Your task to perform on an android device: check the backup settings in the google photos Image 0: 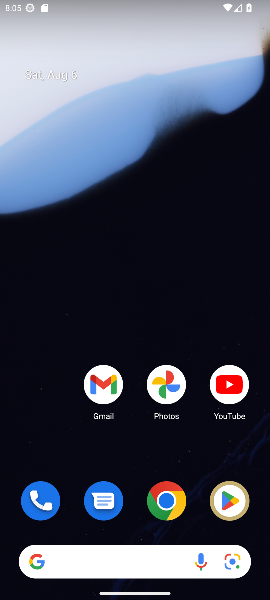
Step 0: click (166, 390)
Your task to perform on an android device: check the backup settings in the google photos Image 1: 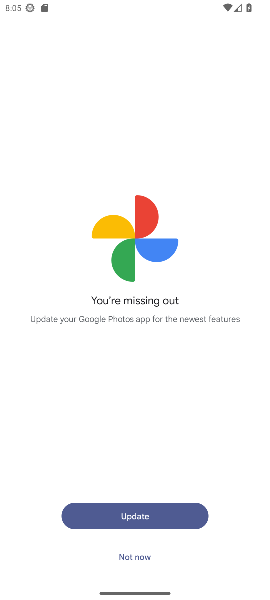
Step 1: click (128, 561)
Your task to perform on an android device: check the backup settings in the google photos Image 2: 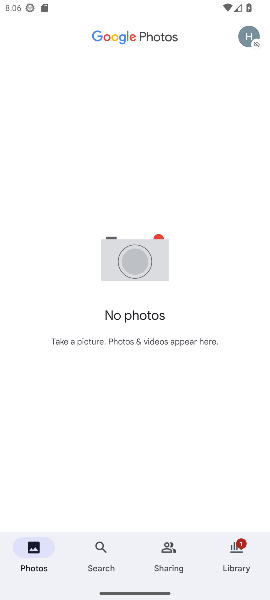
Step 2: click (249, 37)
Your task to perform on an android device: check the backup settings in the google photos Image 3: 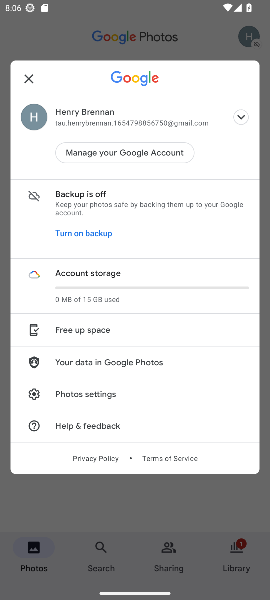
Step 3: click (90, 196)
Your task to perform on an android device: check the backup settings in the google photos Image 4: 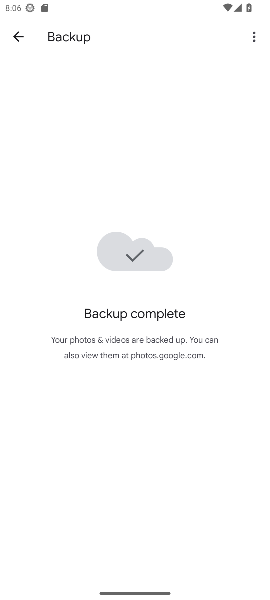
Step 4: task complete